Your task to perform on an android device: Go to internet settings Image 0: 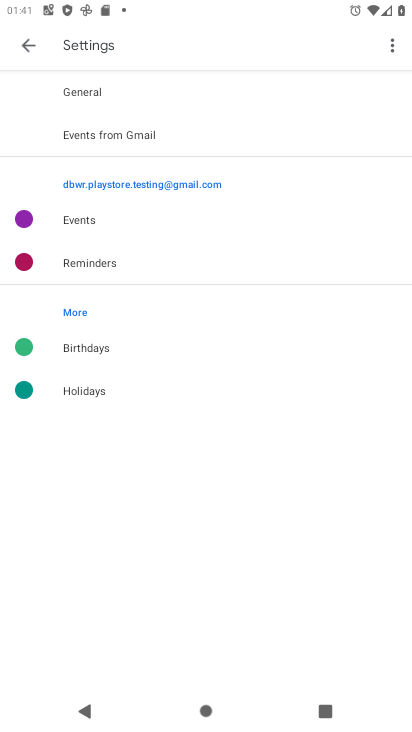
Step 0: press home button
Your task to perform on an android device: Go to internet settings Image 1: 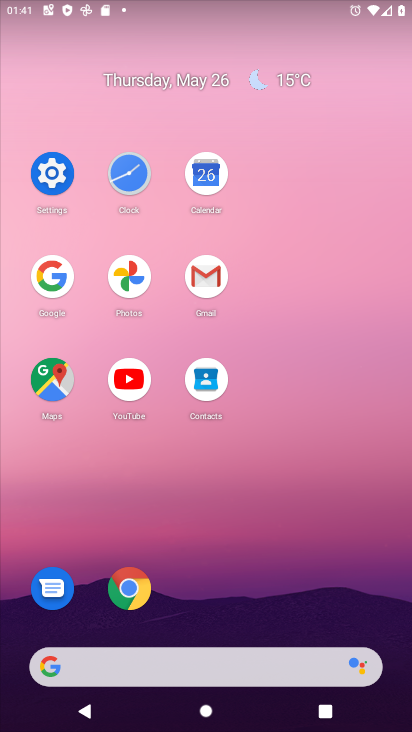
Step 1: click (57, 169)
Your task to perform on an android device: Go to internet settings Image 2: 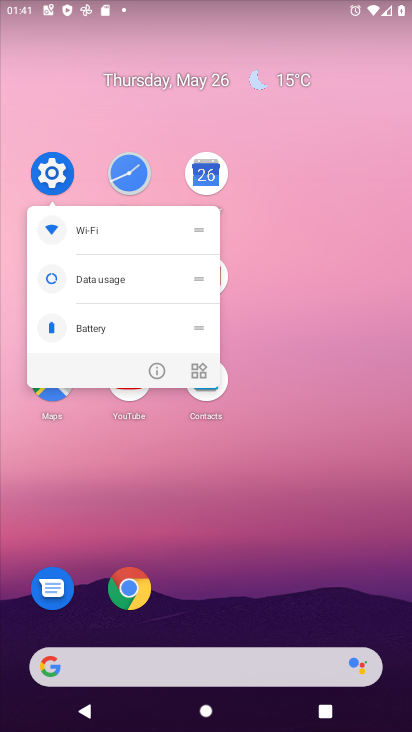
Step 2: click (67, 183)
Your task to perform on an android device: Go to internet settings Image 3: 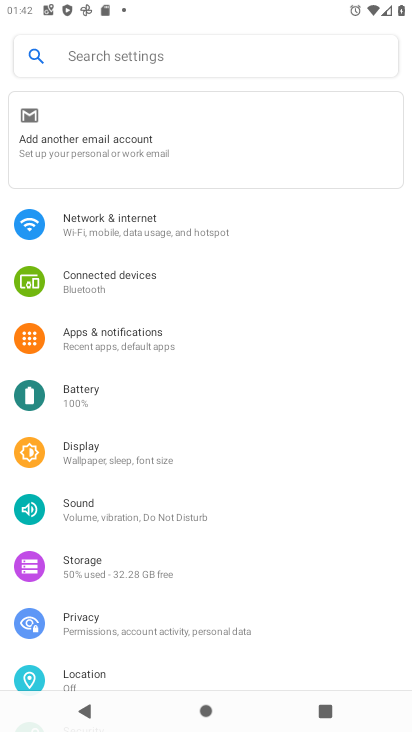
Step 3: click (148, 231)
Your task to perform on an android device: Go to internet settings Image 4: 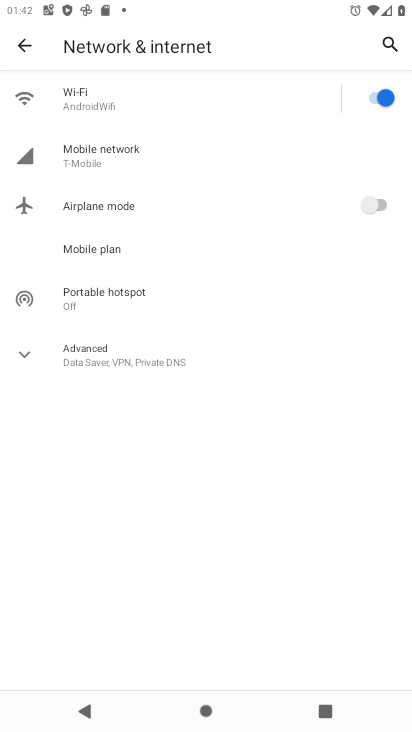
Step 4: task complete